Your task to perform on an android device: Go to accessibility settings Image 0: 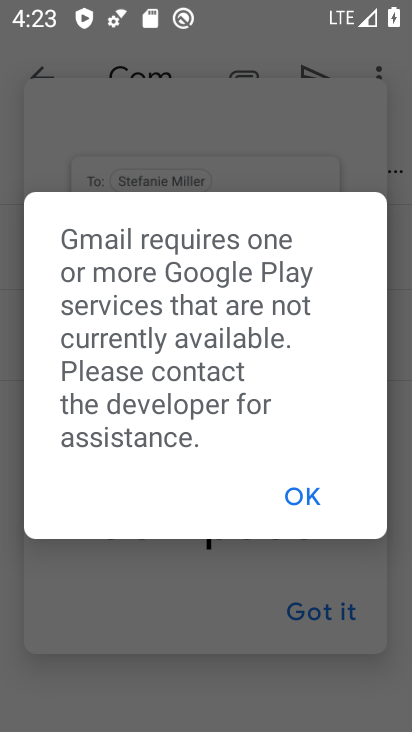
Step 0: click (309, 499)
Your task to perform on an android device: Go to accessibility settings Image 1: 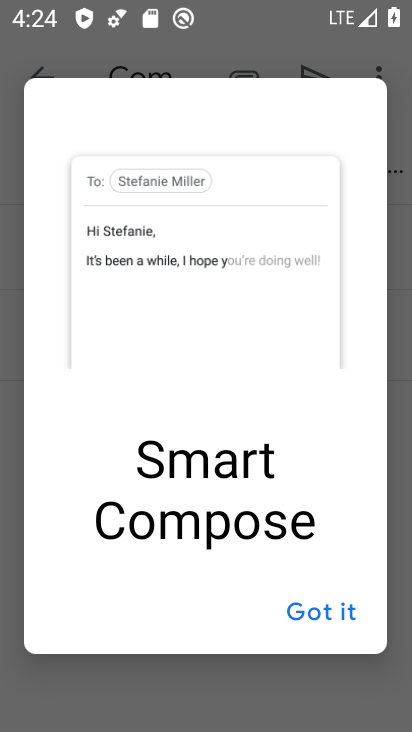
Step 1: click (312, 612)
Your task to perform on an android device: Go to accessibility settings Image 2: 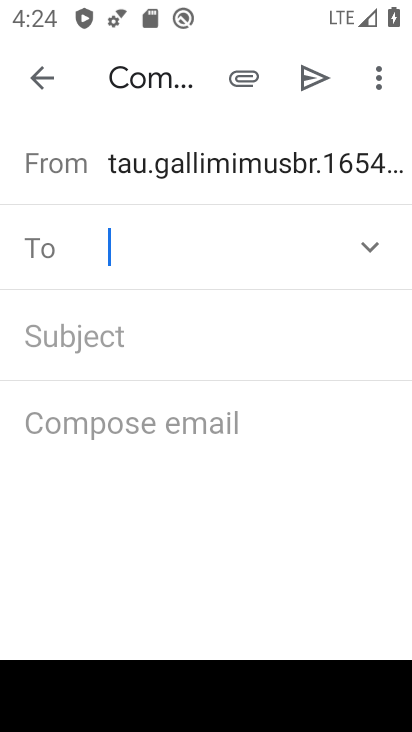
Step 2: press back button
Your task to perform on an android device: Go to accessibility settings Image 3: 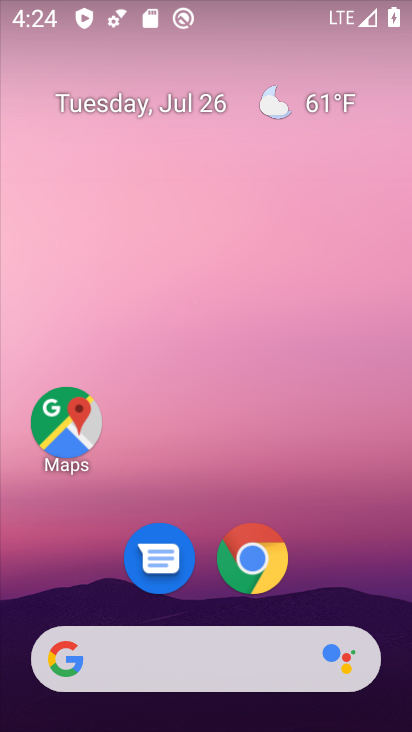
Step 3: drag from (198, 615) to (275, 0)
Your task to perform on an android device: Go to accessibility settings Image 4: 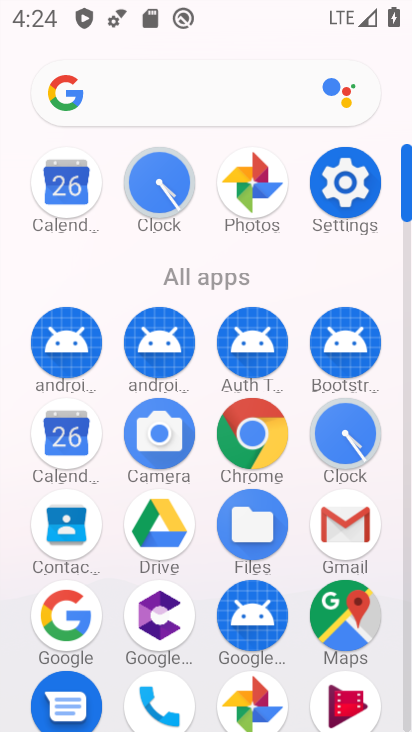
Step 4: click (342, 191)
Your task to perform on an android device: Go to accessibility settings Image 5: 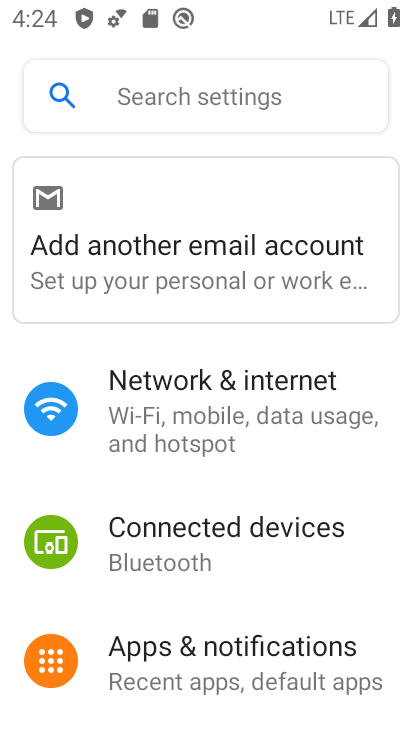
Step 5: drag from (196, 604) to (306, 93)
Your task to perform on an android device: Go to accessibility settings Image 6: 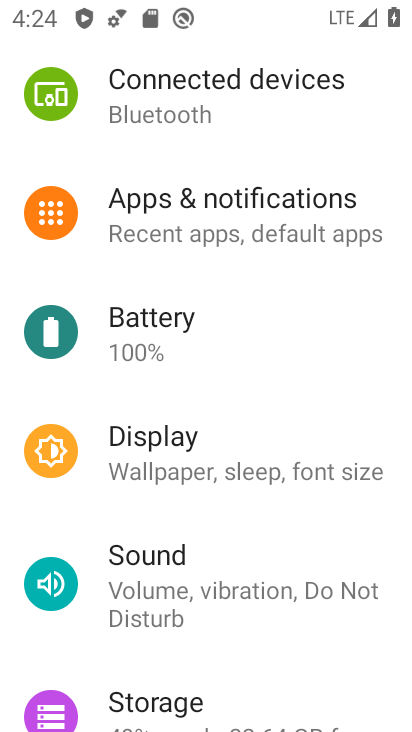
Step 6: drag from (178, 630) to (300, 135)
Your task to perform on an android device: Go to accessibility settings Image 7: 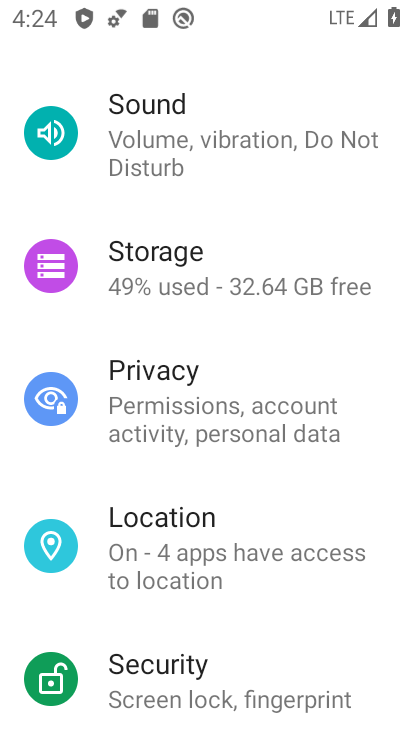
Step 7: drag from (173, 655) to (249, 185)
Your task to perform on an android device: Go to accessibility settings Image 8: 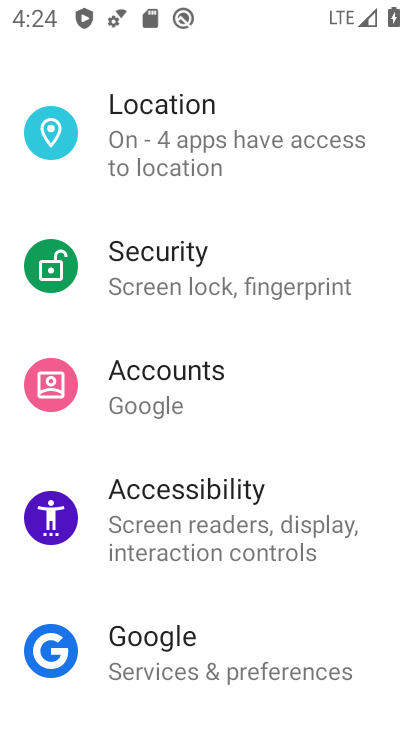
Step 8: click (157, 521)
Your task to perform on an android device: Go to accessibility settings Image 9: 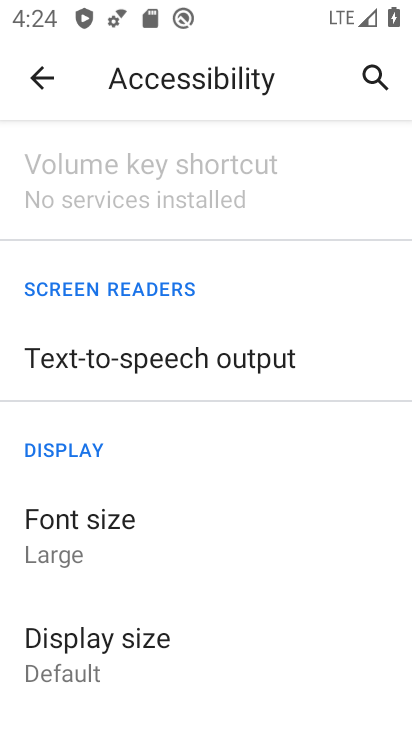
Step 9: task complete